Your task to perform on an android device: see tabs open on other devices in the chrome app Image 0: 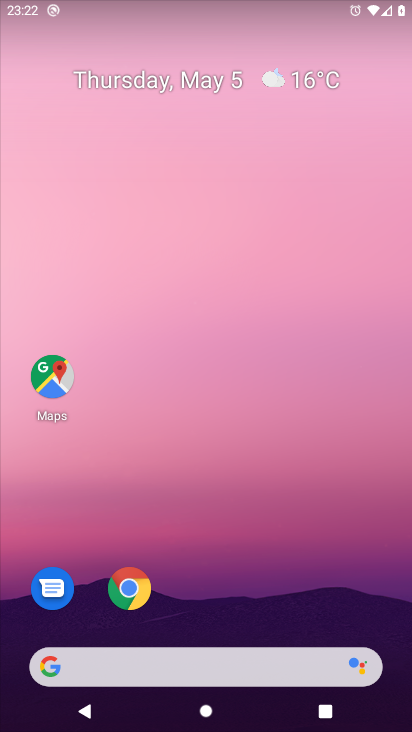
Step 0: drag from (247, 606) to (242, 321)
Your task to perform on an android device: see tabs open on other devices in the chrome app Image 1: 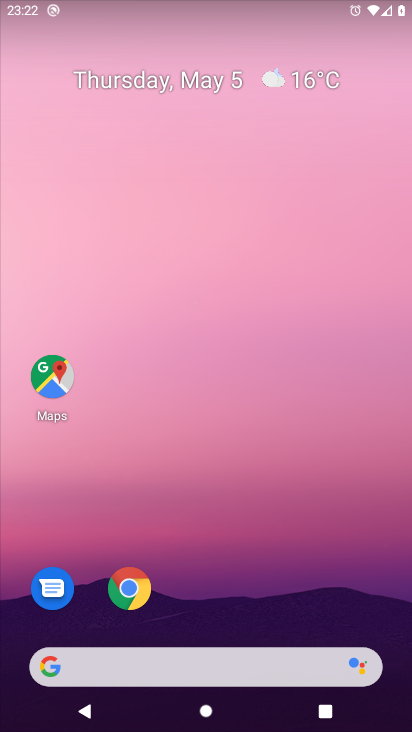
Step 1: click (143, 595)
Your task to perform on an android device: see tabs open on other devices in the chrome app Image 2: 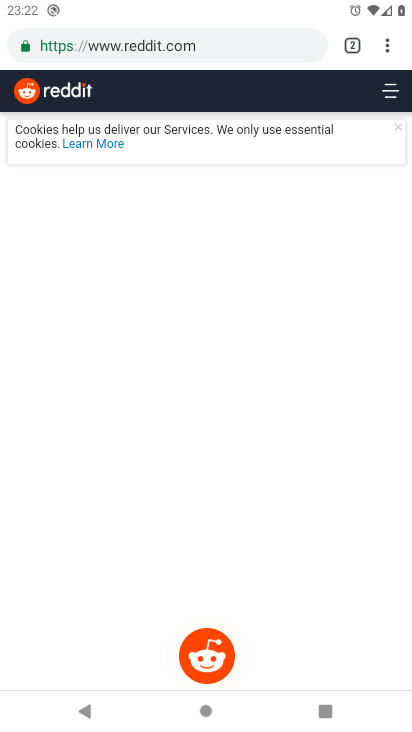
Step 2: task complete